Your task to perform on an android device: find snoozed emails in the gmail app Image 0: 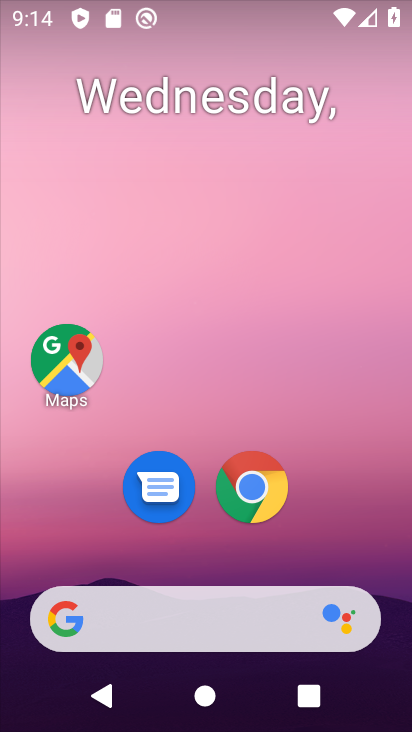
Step 0: drag from (198, 559) to (203, 125)
Your task to perform on an android device: find snoozed emails in the gmail app Image 1: 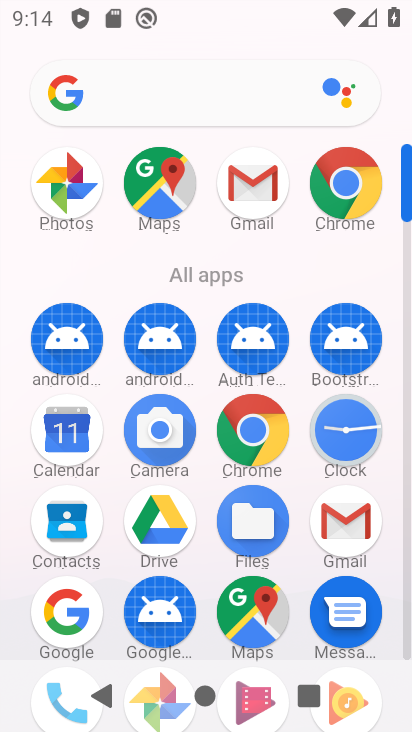
Step 1: click (227, 172)
Your task to perform on an android device: find snoozed emails in the gmail app Image 2: 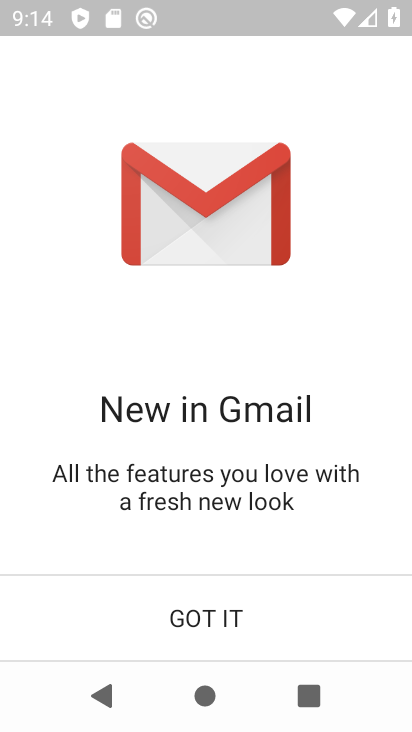
Step 2: click (242, 595)
Your task to perform on an android device: find snoozed emails in the gmail app Image 3: 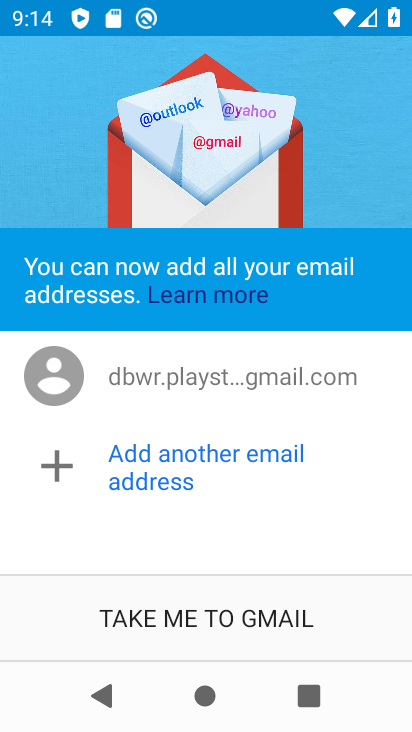
Step 3: click (255, 625)
Your task to perform on an android device: find snoozed emails in the gmail app Image 4: 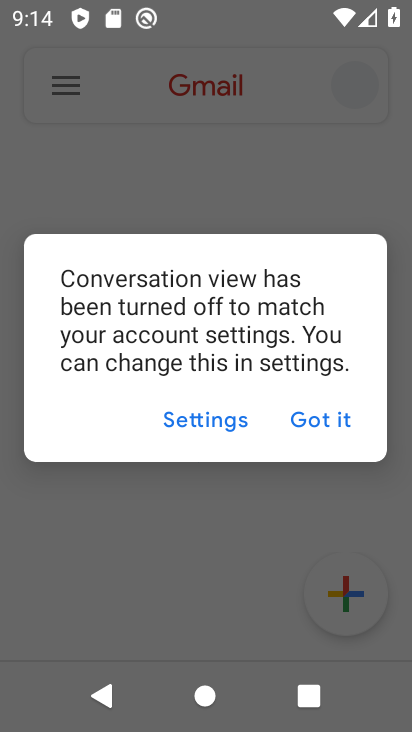
Step 4: click (300, 421)
Your task to perform on an android device: find snoozed emails in the gmail app Image 5: 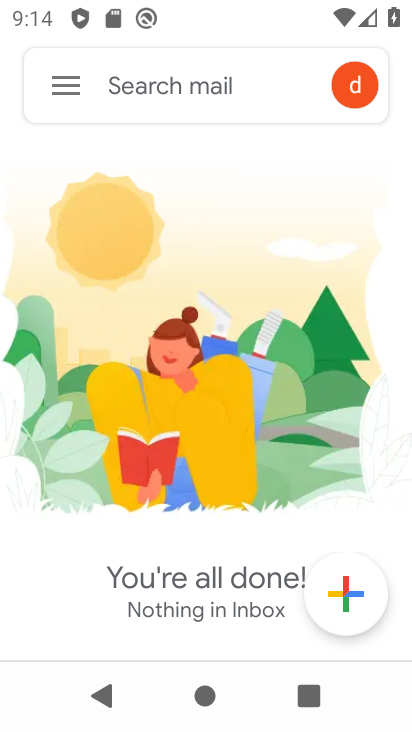
Step 5: click (68, 97)
Your task to perform on an android device: find snoozed emails in the gmail app Image 6: 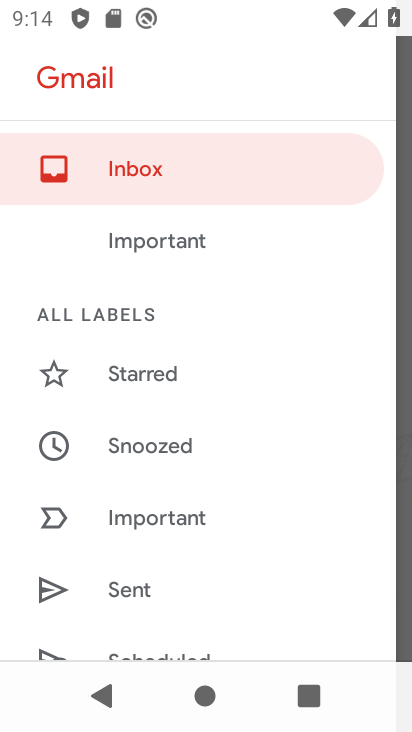
Step 6: click (178, 440)
Your task to perform on an android device: find snoozed emails in the gmail app Image 7: 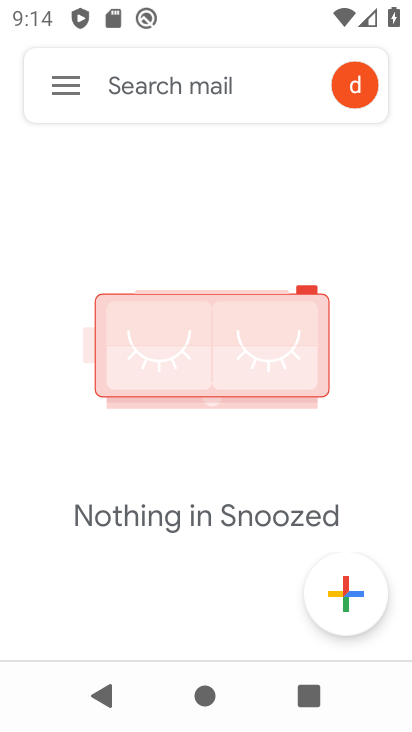
Step 7: task complete